Your task to perform on an android device: change the upload size in google photos Image 0: 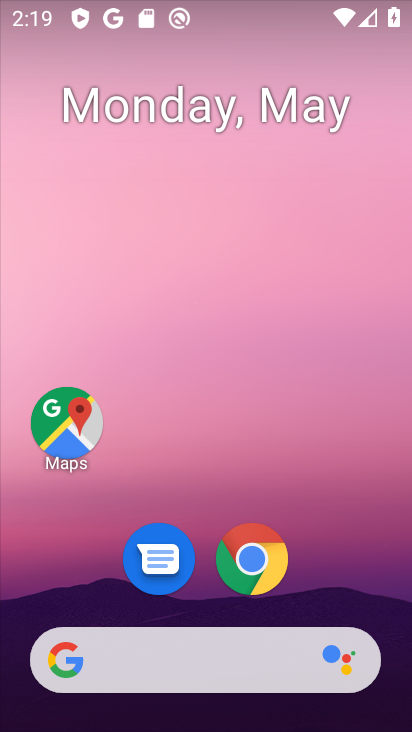
Step 0: drag from (335, 587) to (408, 200)
Your task to perform on an android device: change the upload size in google photos Image 1: 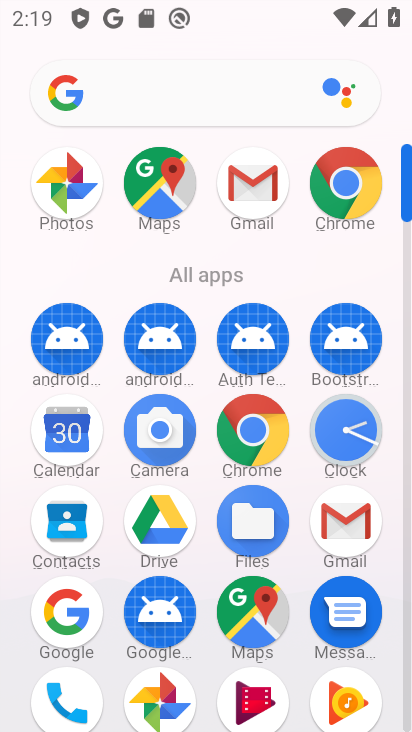
Step 1: click (67, 183)
Your task to perform on an android device: change the upload size in google photos Image 2: 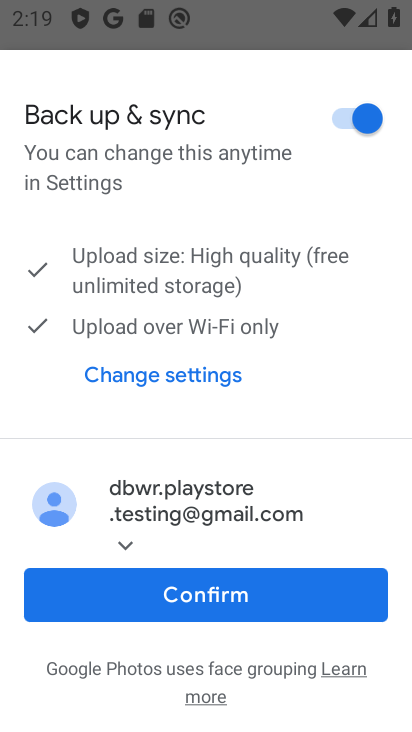
Step 2: click (120, 593)
Your task to perform on an android device: change the upload size in google photos Image 3: 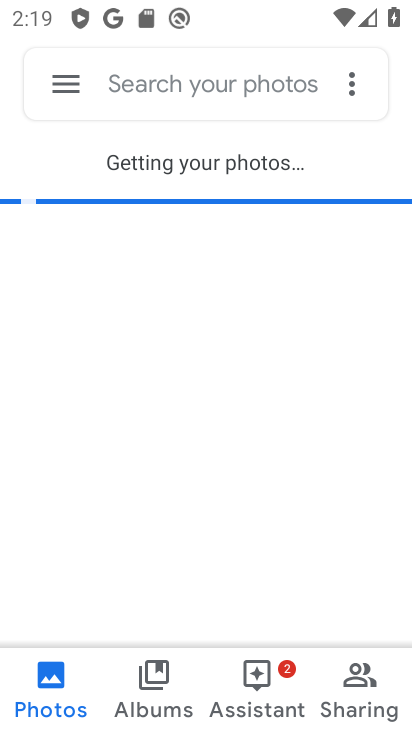
Step 3: click (75, 90)
Your task to perform on an android device: change the upload size in google photos Image 4: 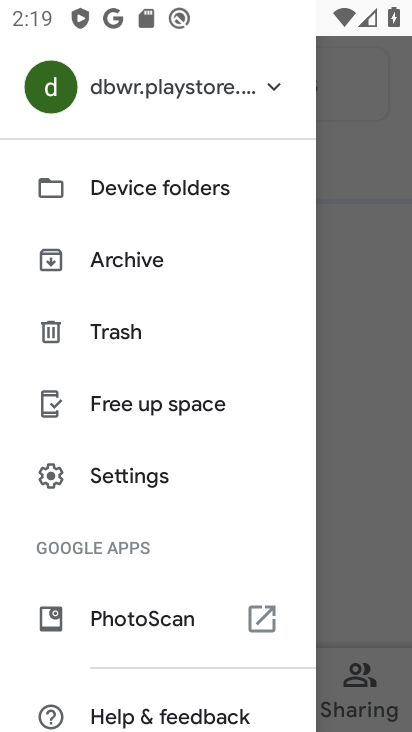
Step 4: click (151, 485)
Your task to perform on an android device: change the upload size in google photos Image 5: 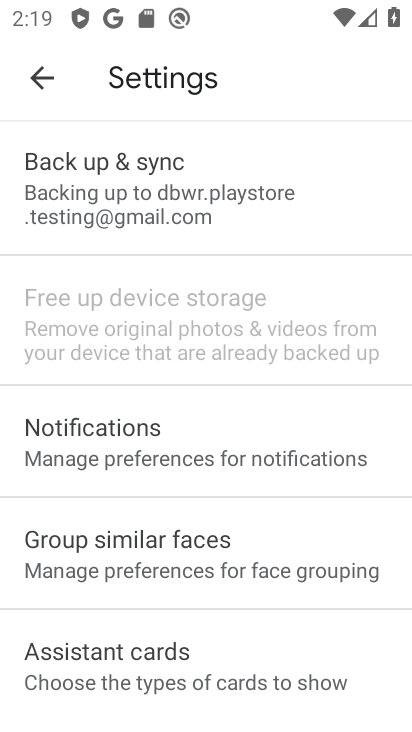
Step 5: click (130, 205)
Your task to perform on an android device: change the upload size in google photos Image 6: 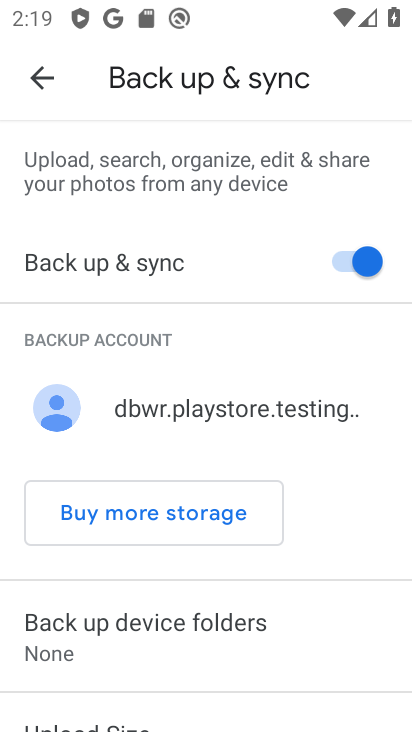
Step 6: drag from (176, 618) to (200, 184)
Your task to perform on an android device: change the upload size in google photos Image 7: 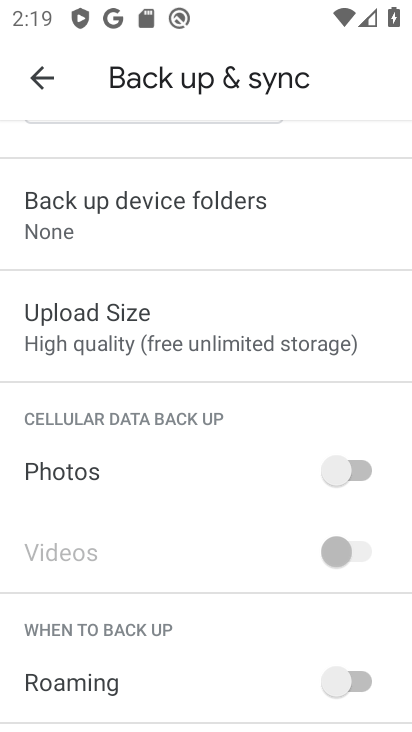
Step 7: click (119, 326)
Your task to perform on an android device: change the upload size in google photos Image 8: 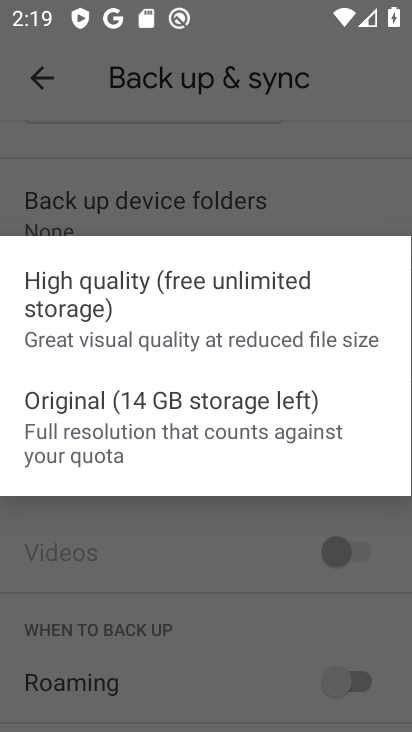
Step 8: click (178, 420)
Your task to perform on an android device: change the upload size in google photos Image 9: 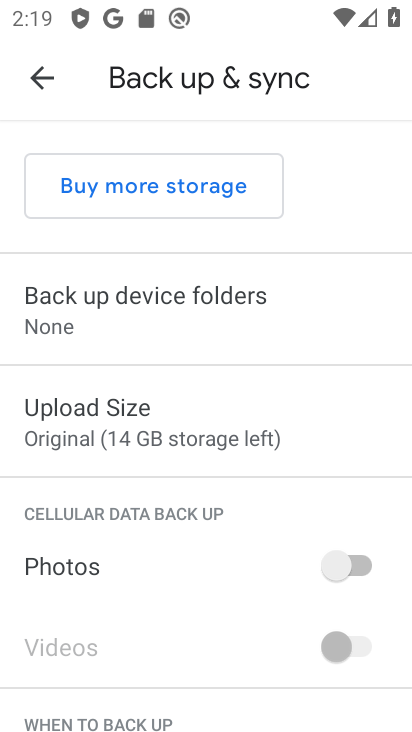
Step 9: task complete